Your task to perform on an android device: stop showing notifications on the lock screen Image 0: 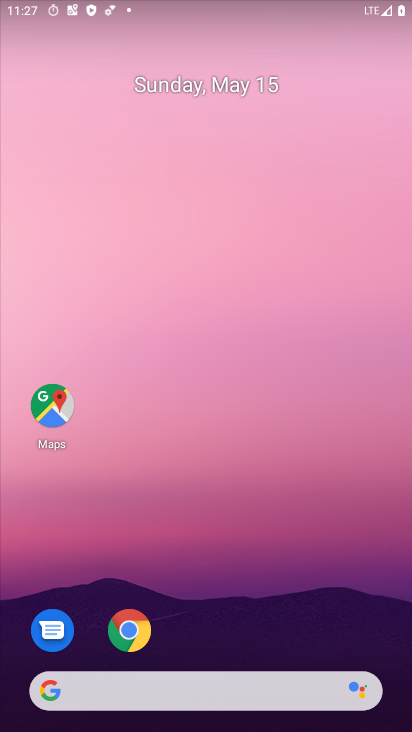
Step 0: drag from (209, 639) to (279, 171)
Your task to perform on an android device: stop showing notifications on the lock screen Image 1: 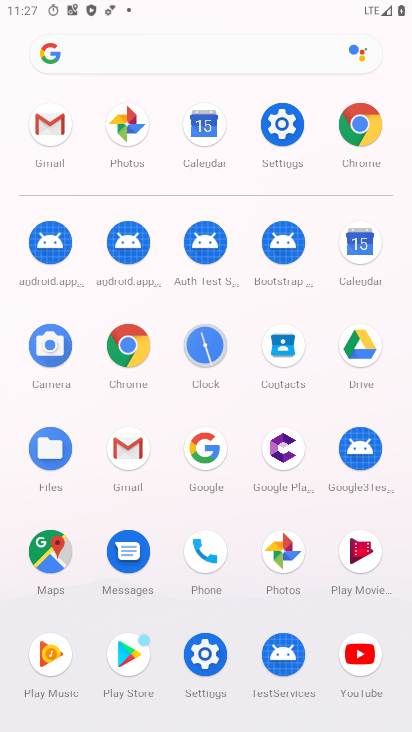
Step 1: click (279, 122)
Your task to perform on an android device: stop showing notifications on the lock screen Image 2: 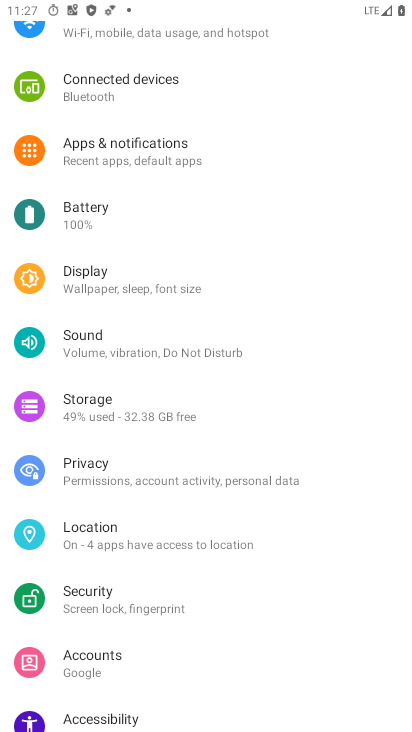
Step 2: click (203, 151)
Your task to perform on an android device: stop showing notifications on the lock screen Image 3: 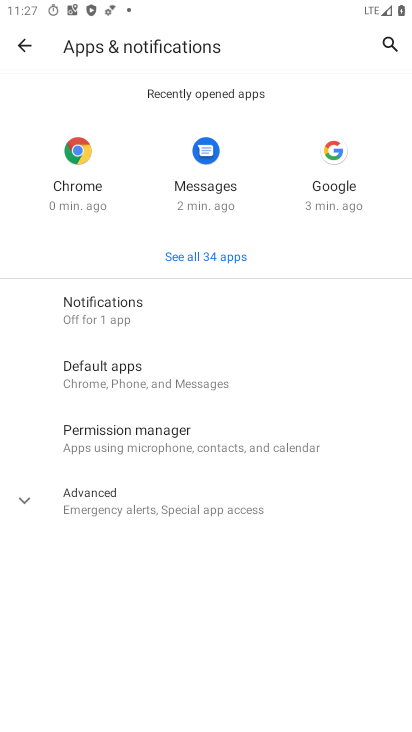
Step 3: click (129, 307)
Your task to perform on an android device: stop showing notifications on the lock screen Image 4: 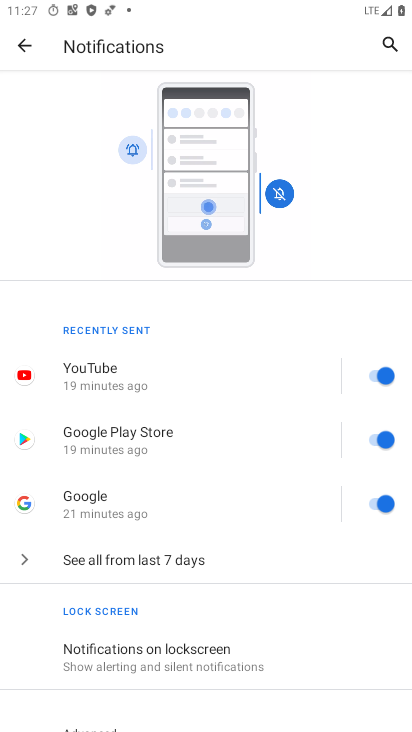
Step 4: click (117, 649)
Your task to perform on an android device: stop showing notifications on the lock screen Image 5: 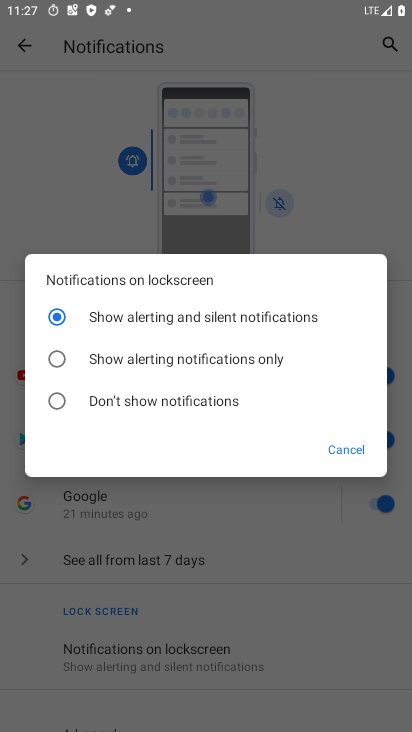
Step 5: click (46, 396)
Your task to perform on an android device: stop showing notifications on the lock screen Image 6: 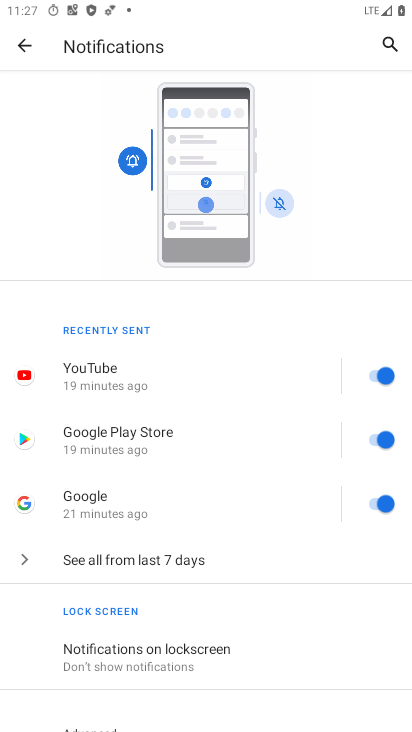
Step 6: task complete